Your task to perform on an android device: Do I have any events this weekend? Image 0: 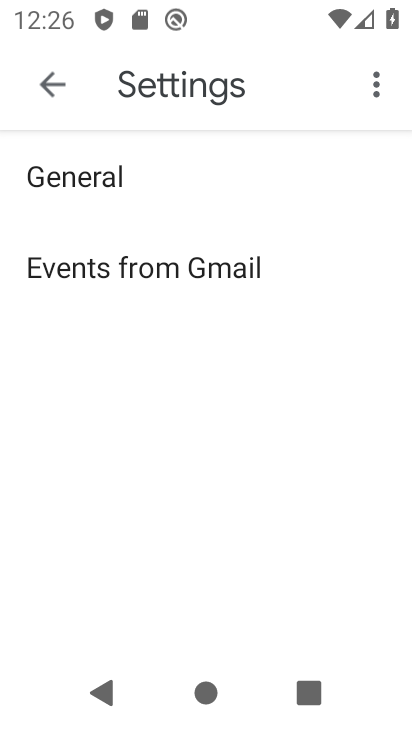
Step 0: press back button
Your task to perform on an android device: Do I have any events this weekend? Image 1: 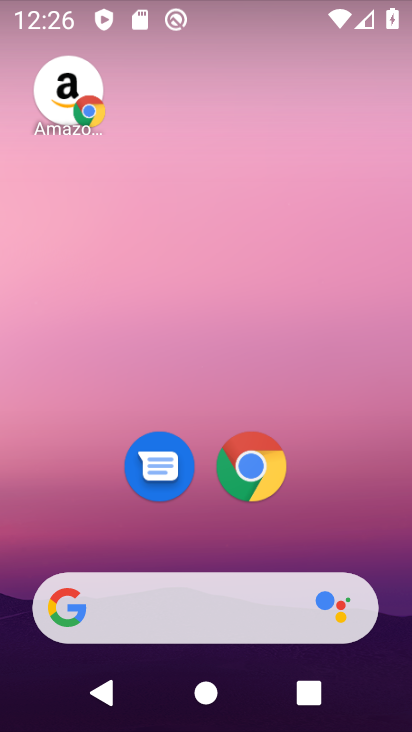
Step 1: drag from (338, 517) to (251, 18)
Your task to perform on an android device: Do I have any events this weekend? Image 2: 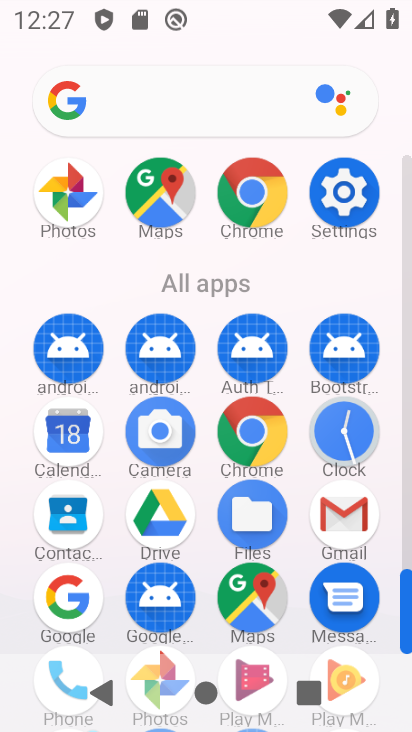
Step 2: click (63, 435)
Your task to perform on an android device: Do I have any events this weekend? Image 3: 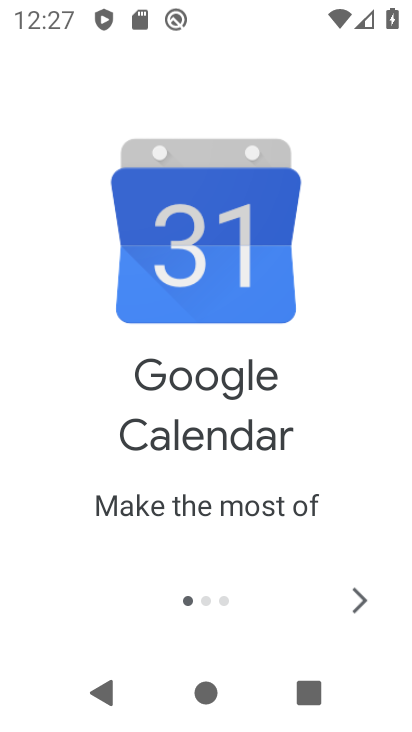
Step 3: click (370, 600)
Your task to perform on an android device: Do I have any events this weekend? Image 4: 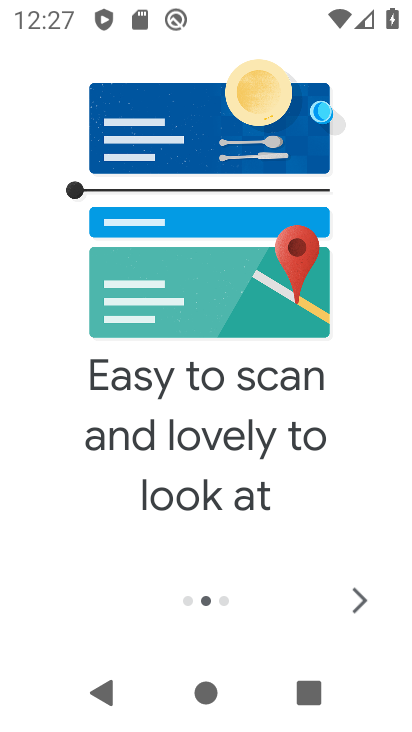
Step 4: click (370, 600)
Your task to perform on an android device: Do I have any events this weekend? Image 5: 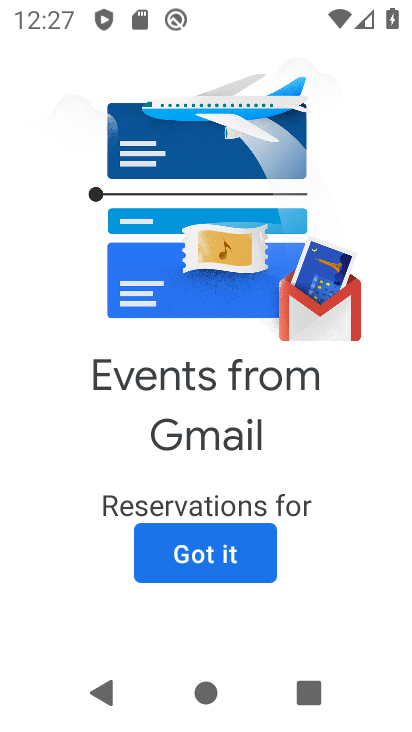
Step 5: click (252, 565)
Your task to perform on an android device: Do I have any events this weekend? Image 6: 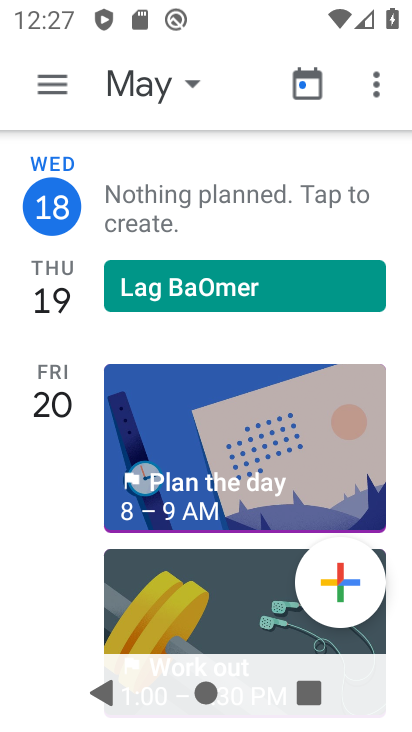
Step 6: click (187, 86)
Your task to perform on an android device: Do I have any events this weekend? Image 7: 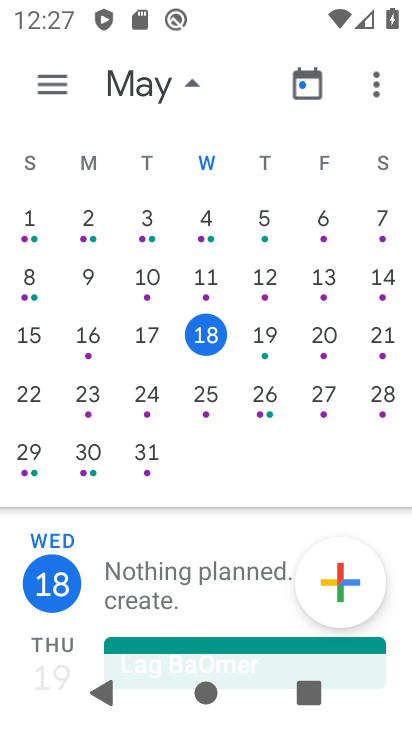
Step 7: click (375, 333)
Your task to perform on an android device: Do I have any events this weekend? Image 8: 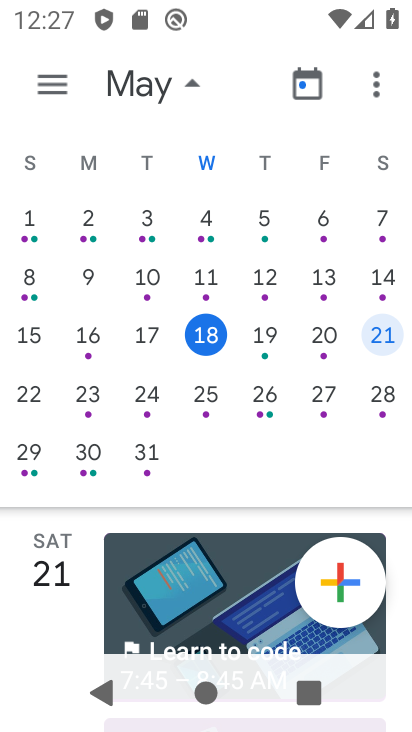
Step 8: click (43, 79)
Your task to perform on an android device: Do I have any events this weekend? Image 9: 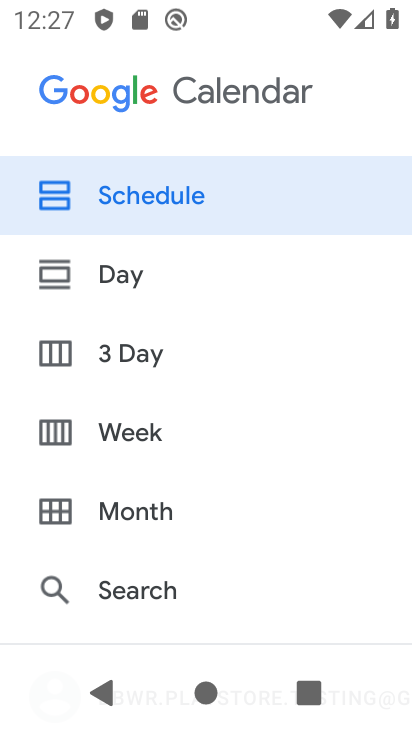
Step 9: click (137, 437)
Your task to perform on an android device: Do I have any events this weekend? Image 10: 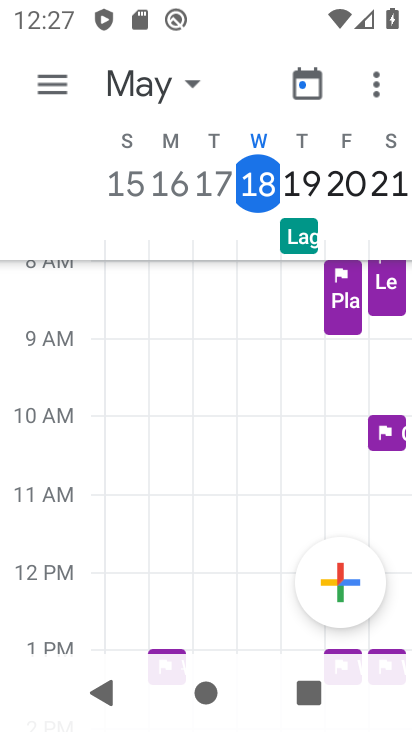
Step 10: task complete